Your task to perform on an android device: What's on my calendar today? Image 0: 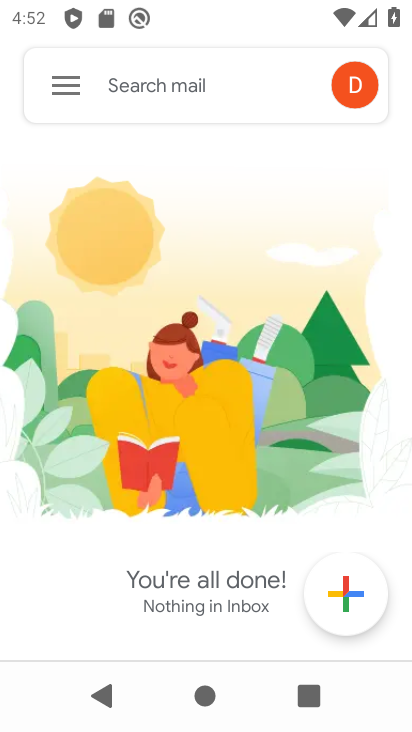
Step 0: press home button
Your task to perform on an android device: What's on my calendar today? Image 1: 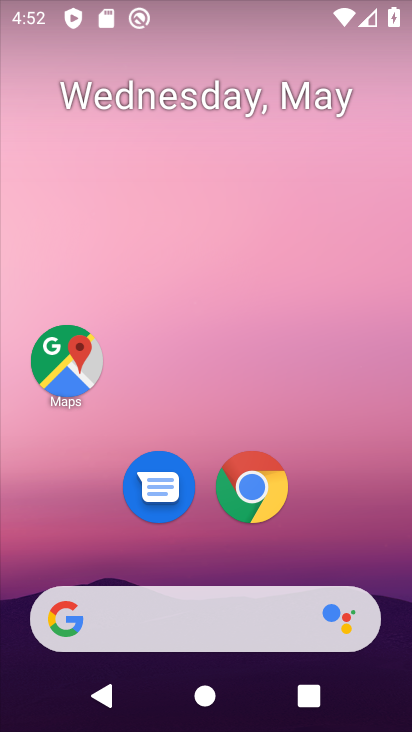
Step 1: drag from (352, 529) to (330, 131)
Your task to perform on an android device: What's on my calendar today? Image 2: 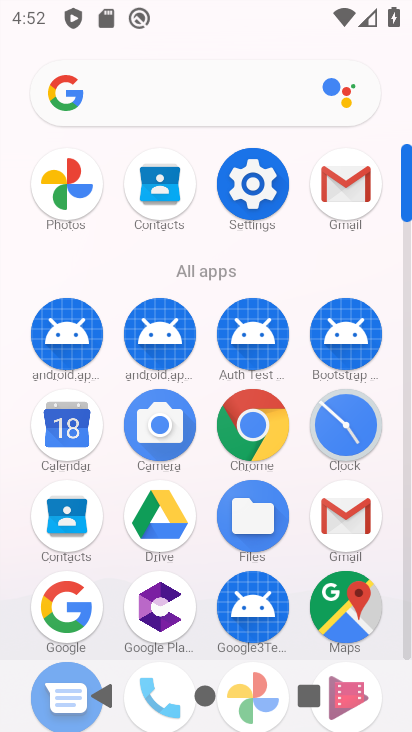
Step 2: click (96, 423)
Your task to perform on an android device: What's on my calendar today? Image 3: 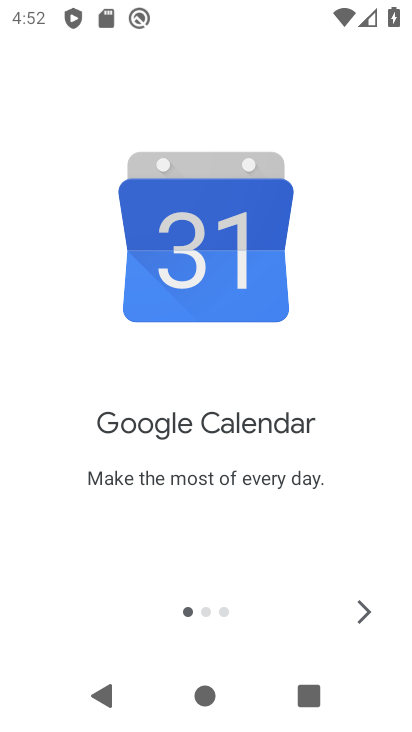
Step 3: click (373, 615)
Your task to perform on an android device: What's on my calendar today? Image 4: 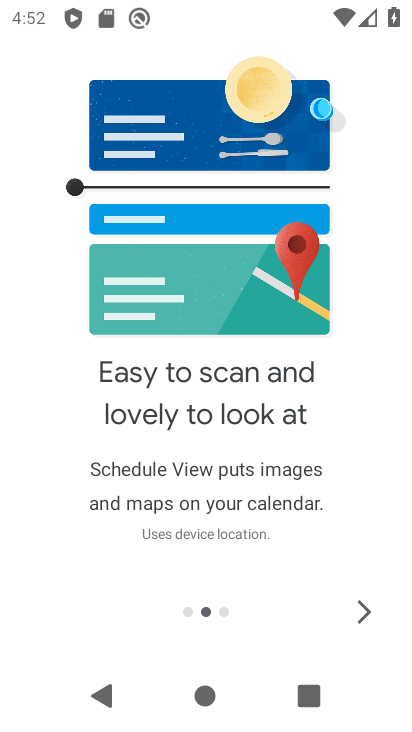
Step 4: click (373, 615)
Your task to perform on an android device: What's on my calendar today? Image 5: 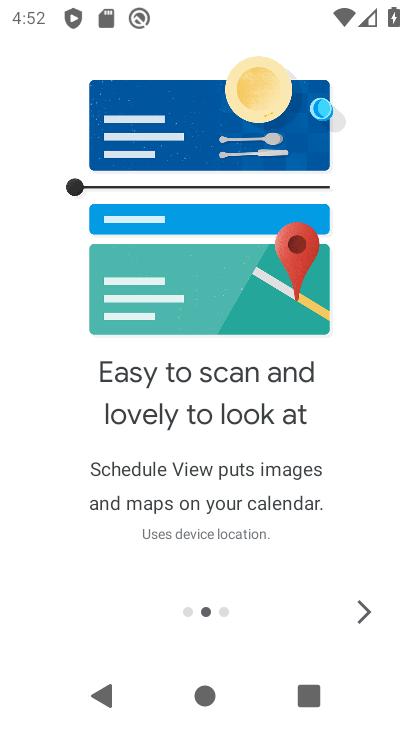
Step 5: click (373, 615)
Your task to perform on an android device: What's on my calendar today? Image 6: 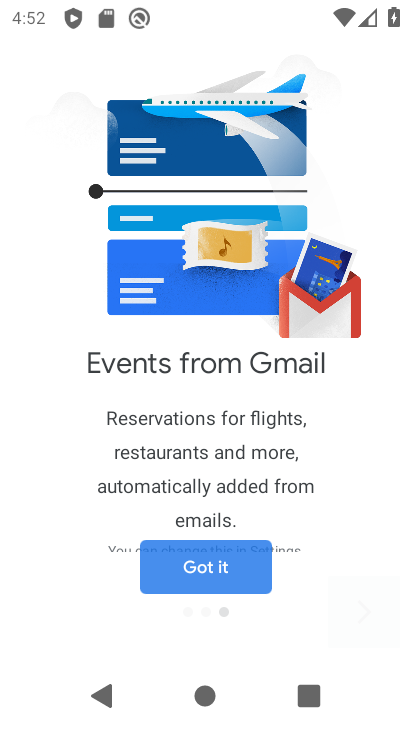
Step 6: click (373, 615)
Your task to perform on an android device: What's on my calendar today? Image 7: 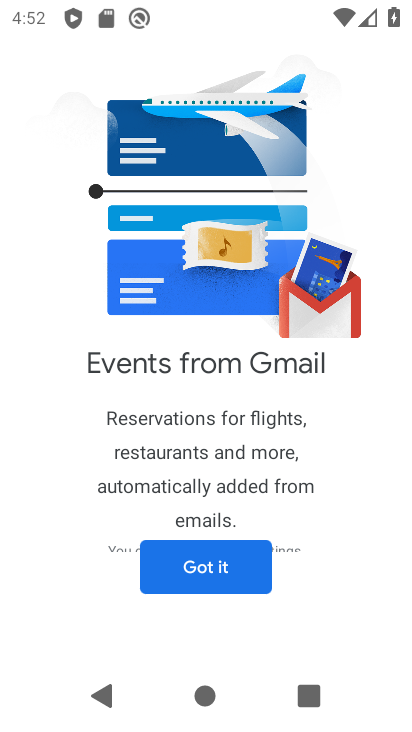
Step 7: click (245, 553)
Your task to perform on an android device: What's on my calendar today? Image 8: 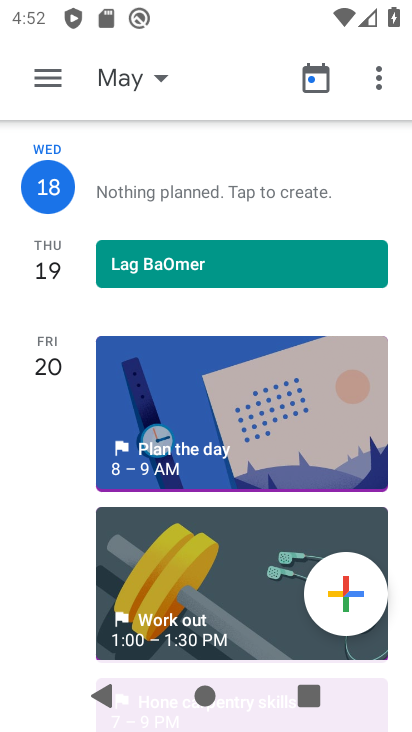
Step 8: task complete